Your task to perform on an android device: Is it going to rain today? Image 0: 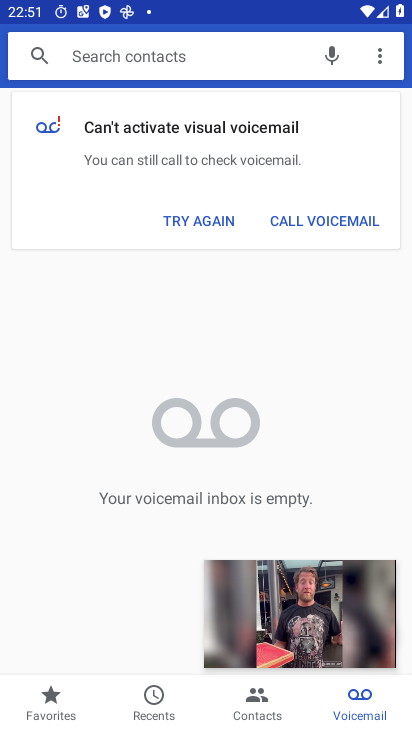
Step 0: click (317, 600)
Your task to perform on an android device: Is it going to rain today? Image 1: 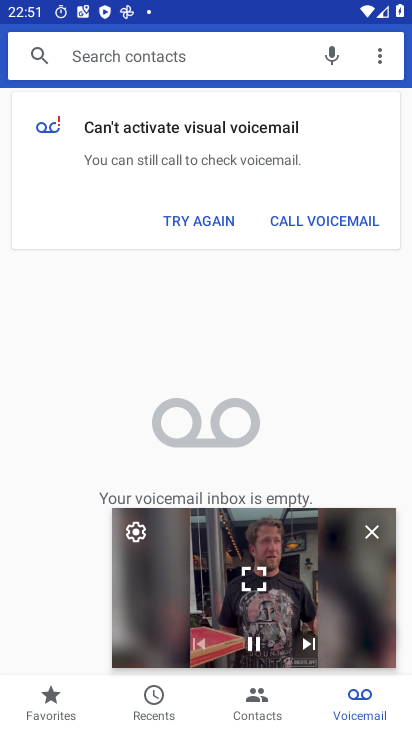
Step 1: click (373, 530)
Your task to perform on an android device: Is it going to rain today? Image 2: 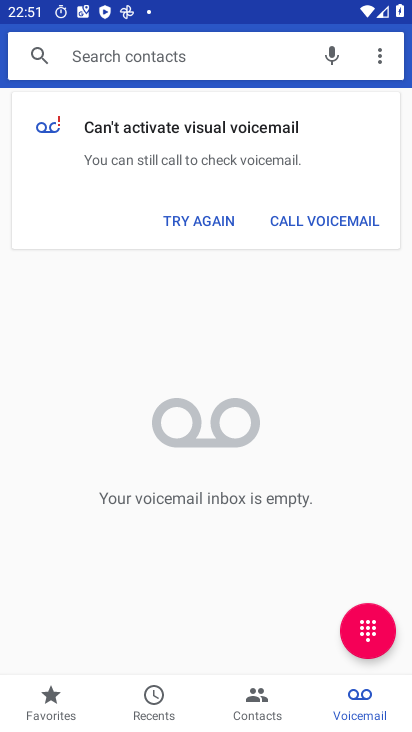
Step 2: press home button
Your task to perform on an android device: Is it going to rain today? Image 3: 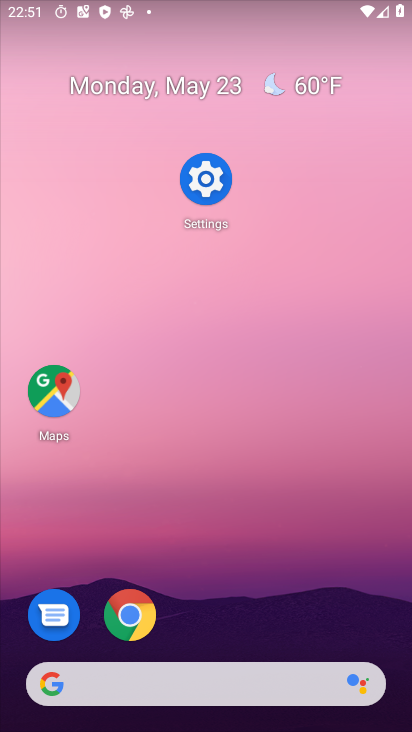
Step 3: drag from (254, 568) to (267, 49)
Your task to perform on an android device: Is it going to rain today? Image 4: 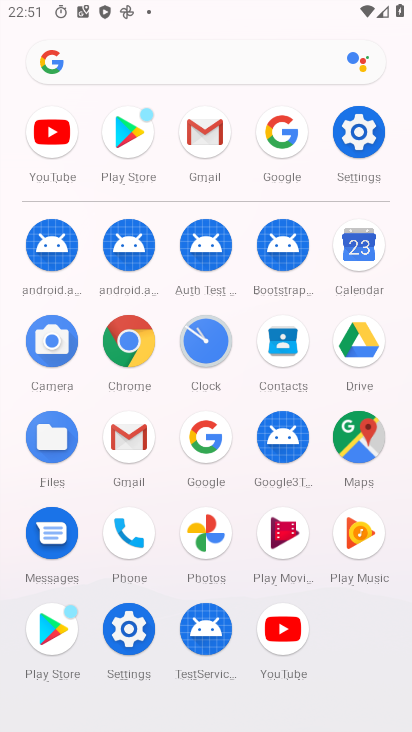
Step 4: click (204, 435)
Your task to perform on an android device: Is it going to rain today? Image 5: 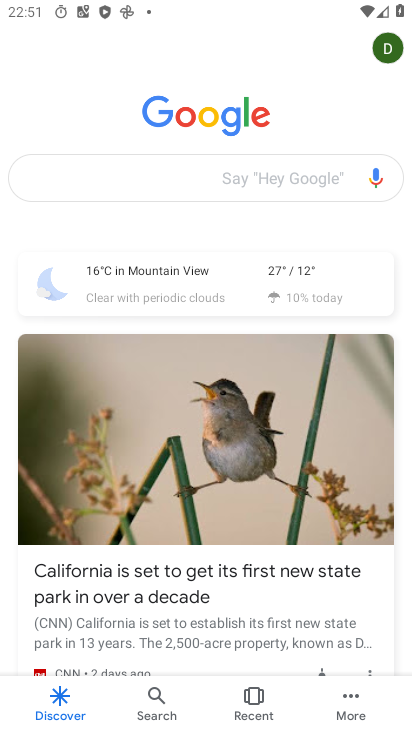
Step 5: click (227, 183)
Your task to perform on an android device: Is it going to rain today? Image 6: 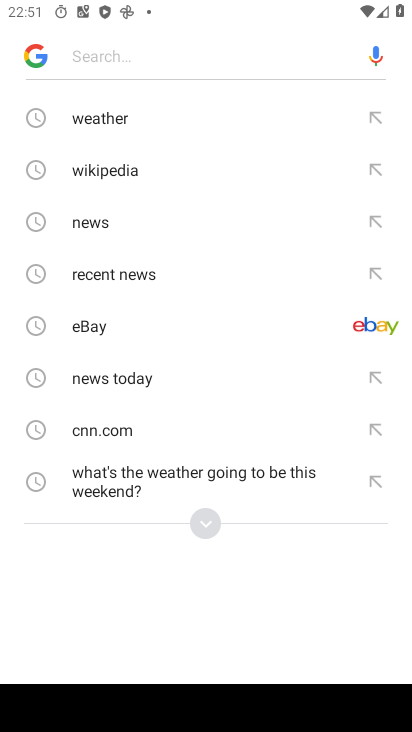
Step 6: type "is it going to rain today"
Your task to perform on an android device: Is it going to rain today? Image 7: 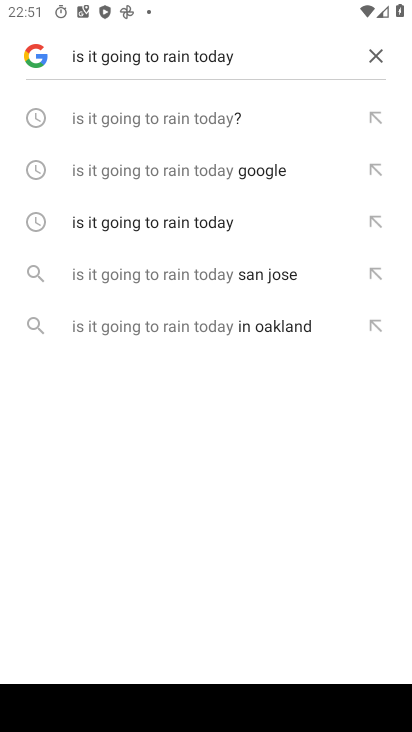
Step 7: click (270, 111)
Your task to perform on an android device: Is it going to rain today? Image 8: 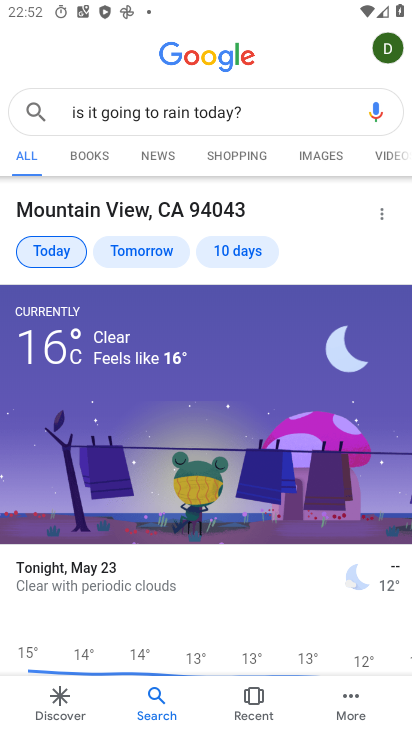
Step 8: task complete